Your task to perform on an android device: toggle pop-ups in chrome Image 0: 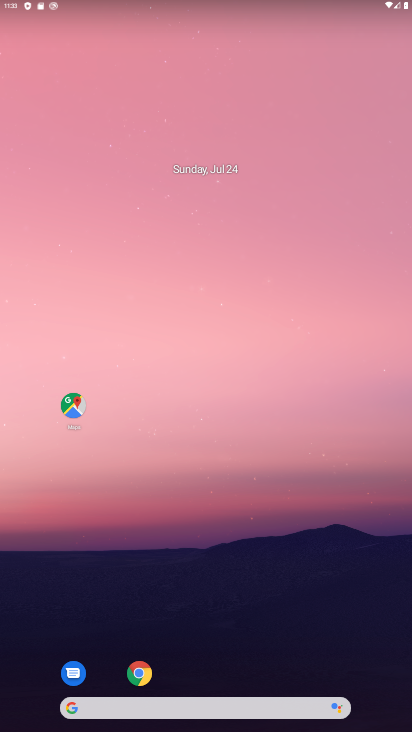
Step 0: click (138, 671)
Your task to perform on an android device: toggle pop-ups in chrome Image 1: 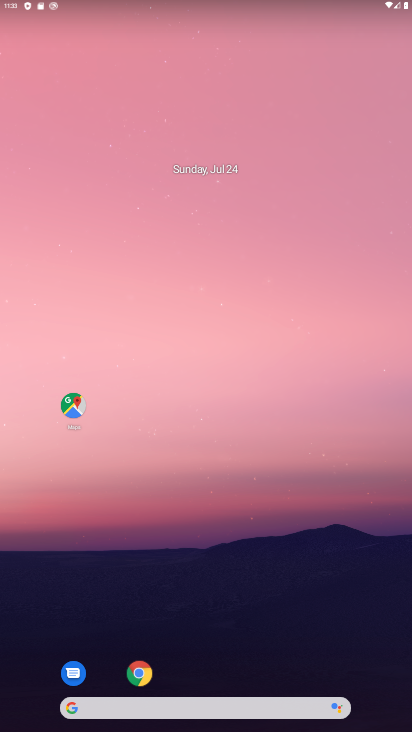
Step 1: click (138, 671)
Your task to perform on an android device: toggle pop-ups in chrome Image 2: 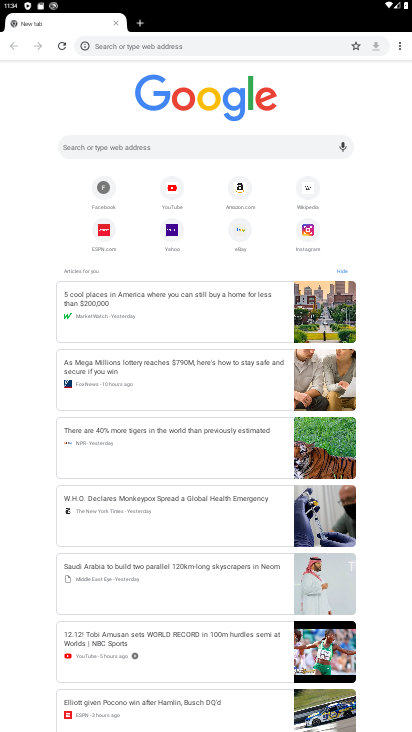
Step 2: click (399, 35)
Your task to perform on an android device: toggle pop-ups in chrome Image 3: 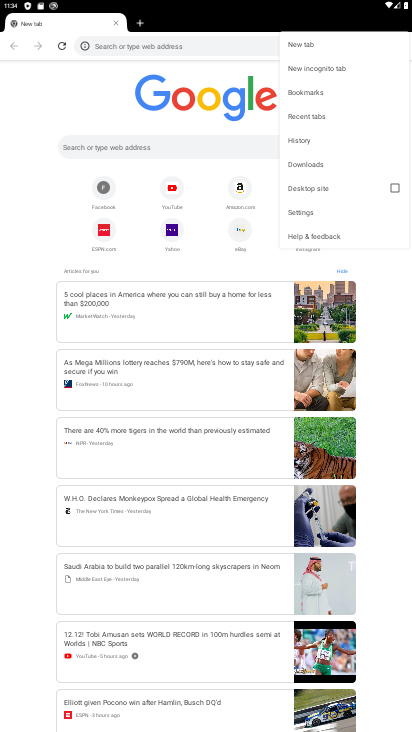
Step 3: click (320, 213)
Your task to perform on an android device: toggle pop-ups in chrome Image 4: 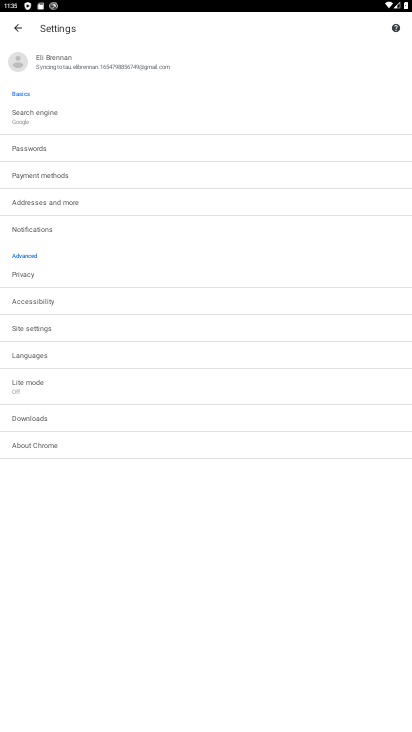
Step 4: click (76, 326)
Your task to perform on an android device: toggle pop-ups in chrome Image 5: 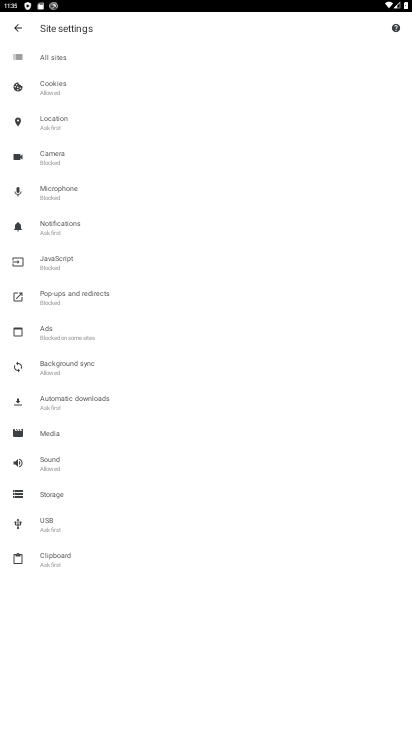
Step 5: click (102, 287)
Your task to perform on an android device: toggle pop-ups in chrome Image 6: 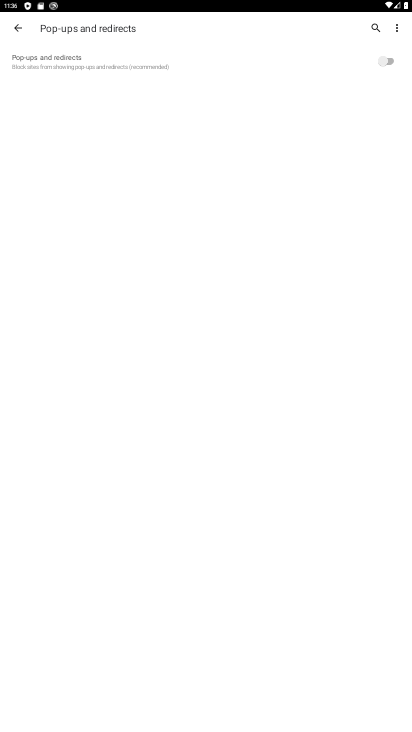
Step 6: click (392, 57)
Your task to perform on an android device: toggle pop-ups in chrome Image 7: 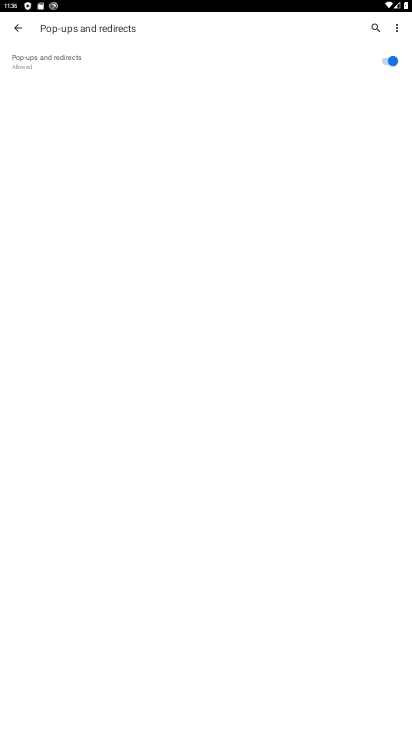
Step 7: task complete